Your task to perform on an android device: set the stopwatch Image 0: 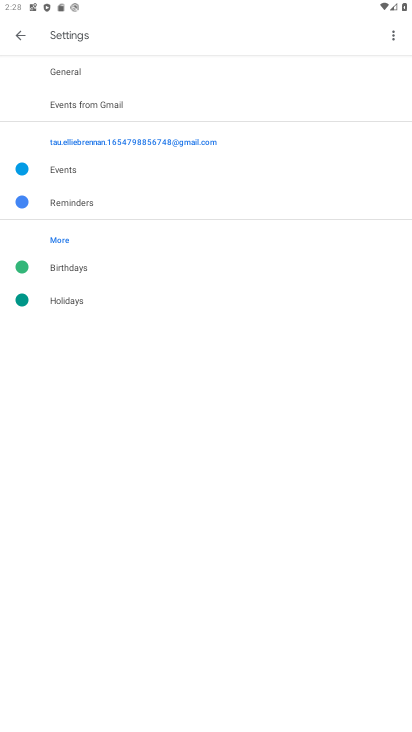
Step 0: press home button
Your task to perform on an android device: set the stopwatch Image 1: 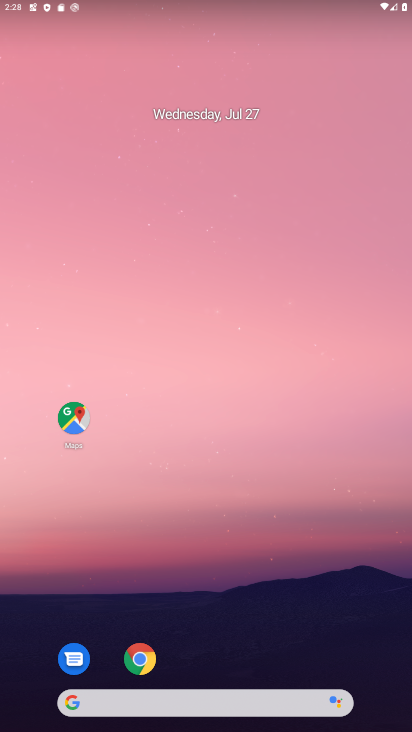
Step 1: drag from (205, 722) to (205, 211)
Your task to perform on an android device: set the stopwatch Image 2: 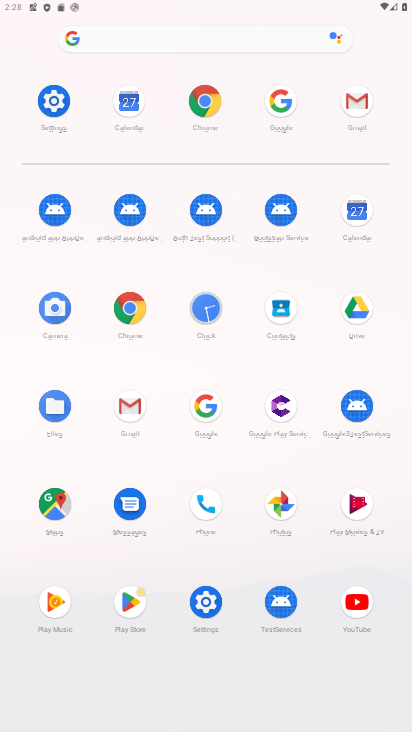
Step 2: click (207, 310)
Your task to perform on an android device: set the stopwatch Image 3: 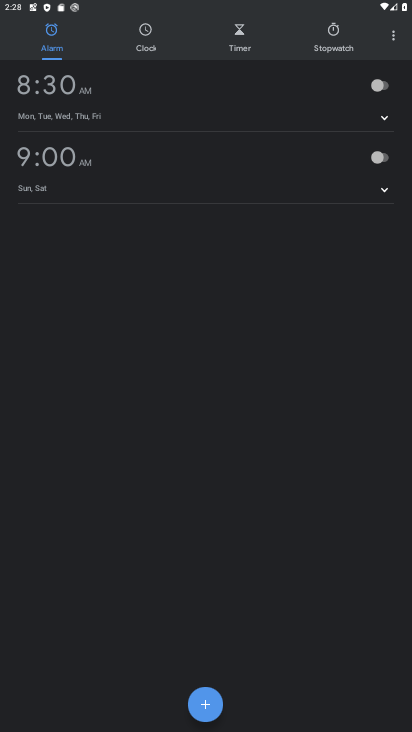
Step 3: click (333, 35)
Your task to perform on an android device: set the stopwatch Image 4: 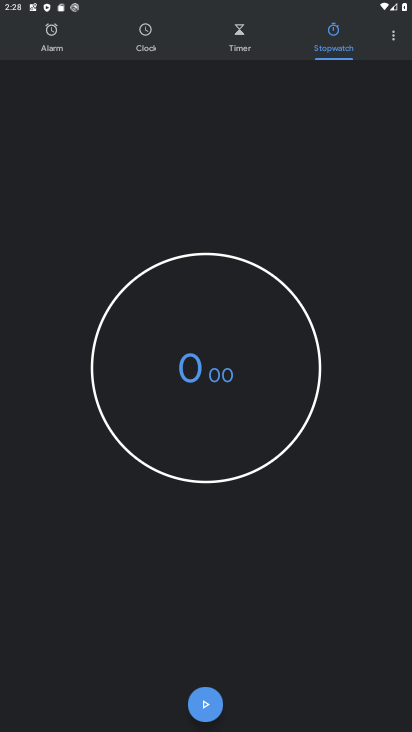
Step 4: click (180, 391)
Your task to perform on an android device: set the stopwatch Image 5: 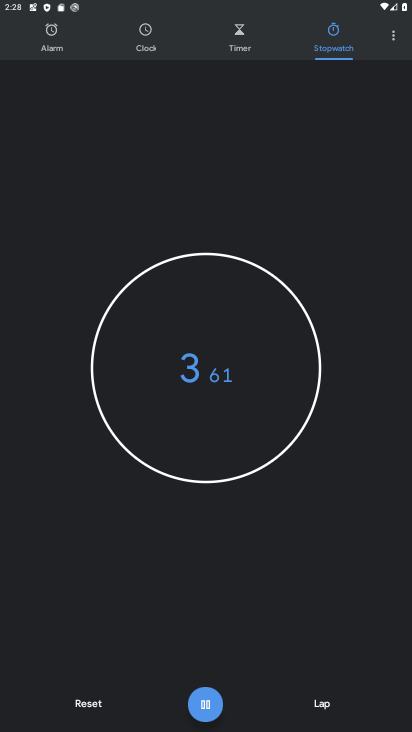
Step 5: type "878"
Your task to perform on an android device: set the stopwatch Image 6: 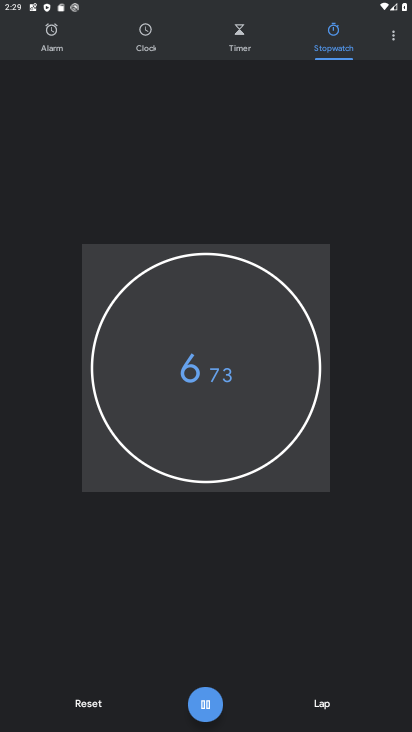
Step 6: task complete